Your task to perform on an android device: toggle improve location accuracy Image 0: 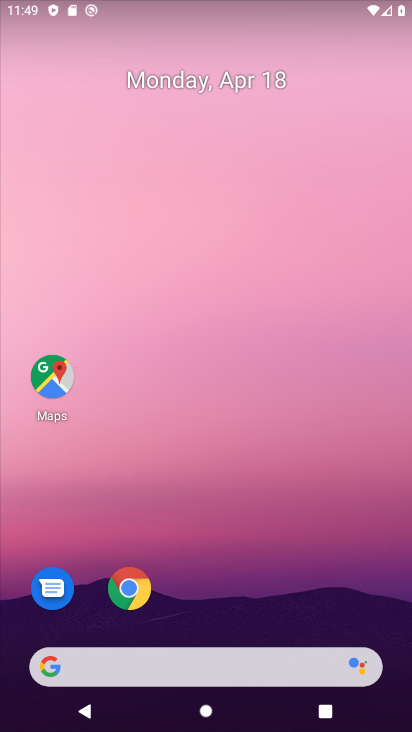
Step 0: drag from (386, 582) to (381, 69)
Your task to perform on an android device: toggle improve location accuracy Image 1: 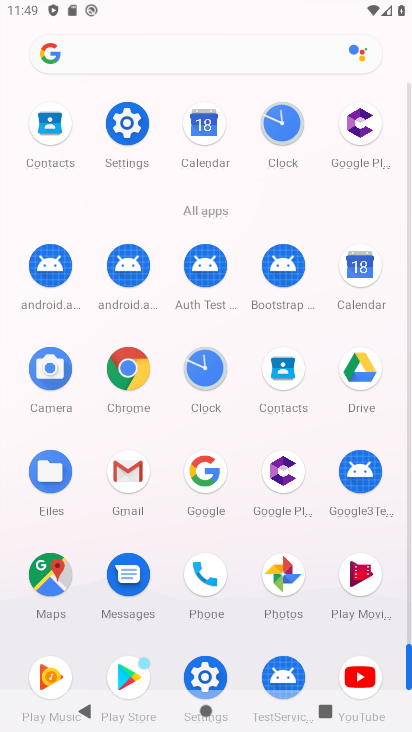
Step 1: click (123, 126)
Your task to perform on an android device: toggle improve location accuracy Image 2: 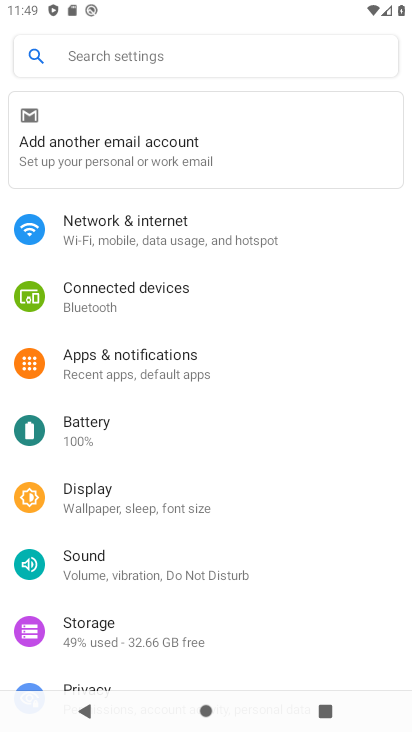
Step 2: drag from (351, 573) to (338, 378)
Your task to perform on an android device: toggle improve location accuracy Image 3: 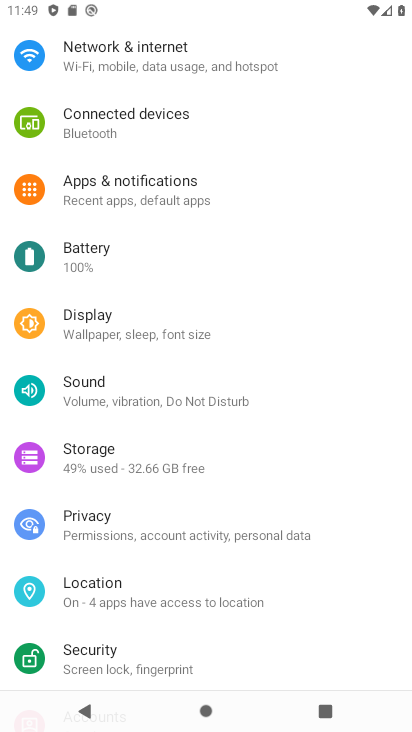
Step 3: drag from (367, 563) to (367, 275)
Your task to perform on an android device: toggle improve location accuracy Image 4: 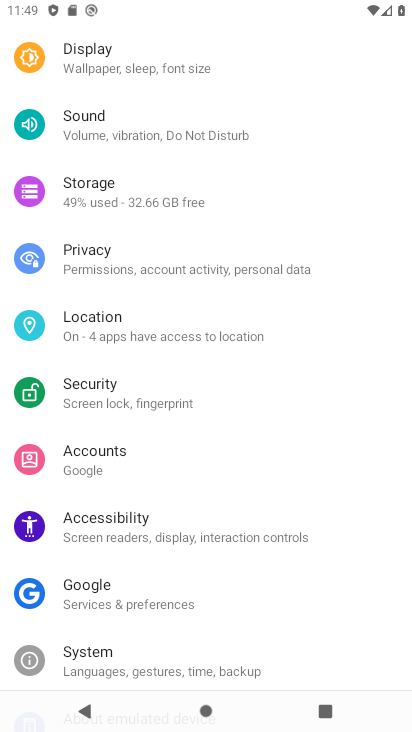
Step 4: click (167, 319)
Your task to perform on an android device: toggle improve location accuracy Image 5: 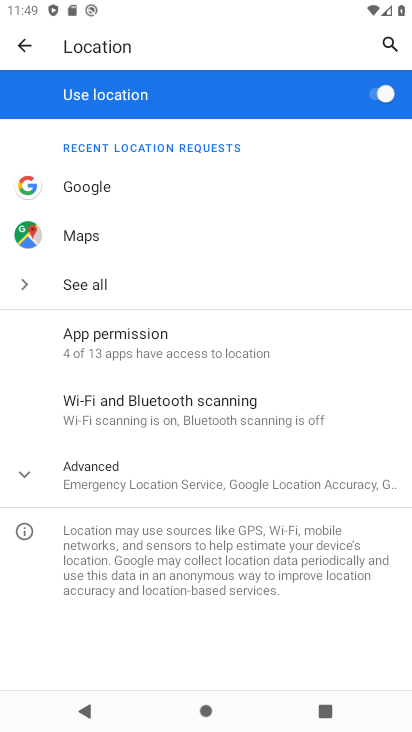
Step 5: click (322, 486)
Your task to perform on an android device: toggle improve location accuracy Image 6: 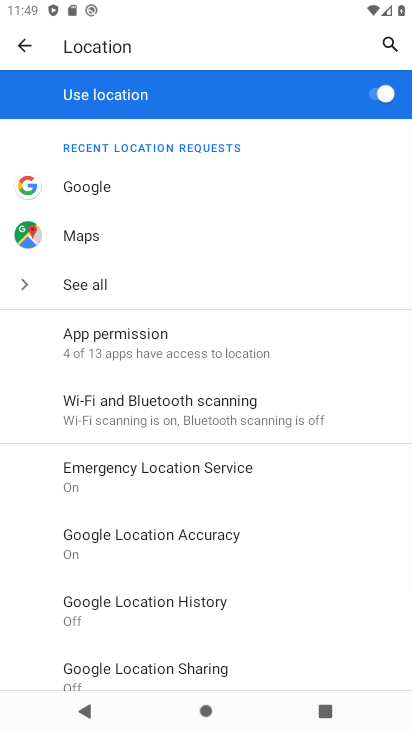
Step 6: drag from (340, 554) to (363, 271)
Your task to perform on an android device: toggle improve location accuracy Image 7: 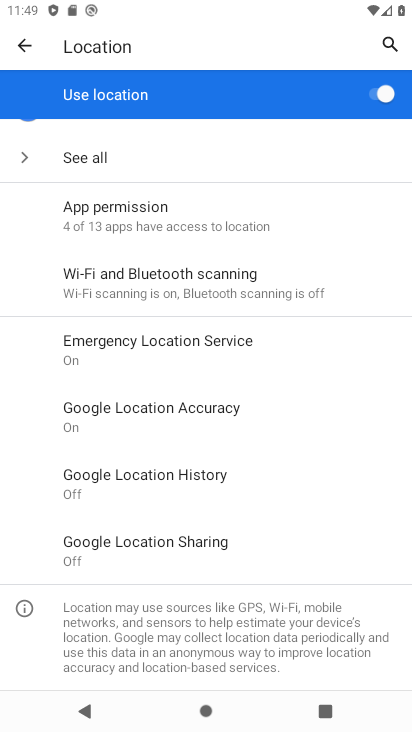
Step 7: click (181, 411)
Your task to perform on an android device: toggle improve location accuracy Image 8: 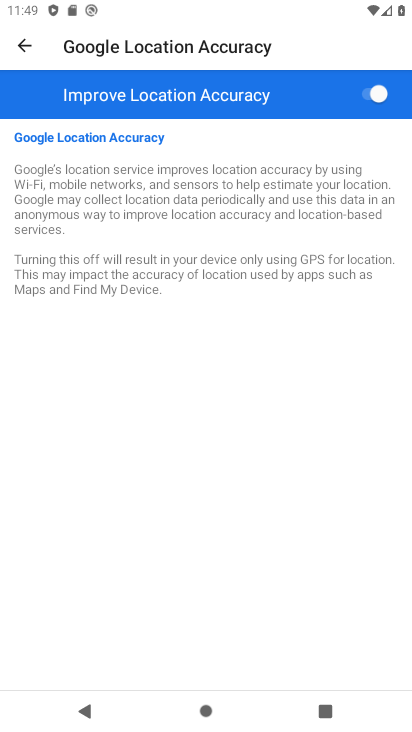
Step 8: click (368, 92)
Your task to perform on an android device: toggle improve location accuracy Image 9: 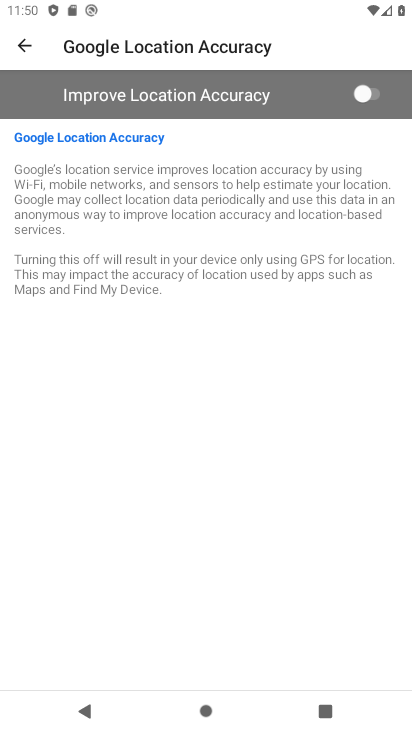
Step 9: task complete